Your task to perform on an android device: Open sound settings Image 0: 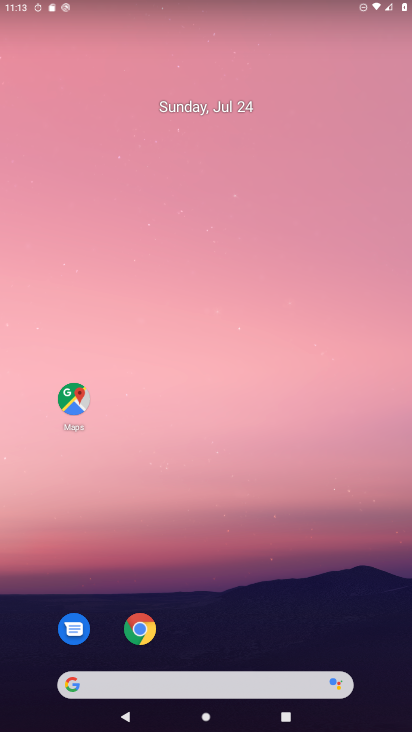
Step 0: drag from (207, 655) to (295, 106)
Your task to perform on an android device: Open sound settings Image 1: 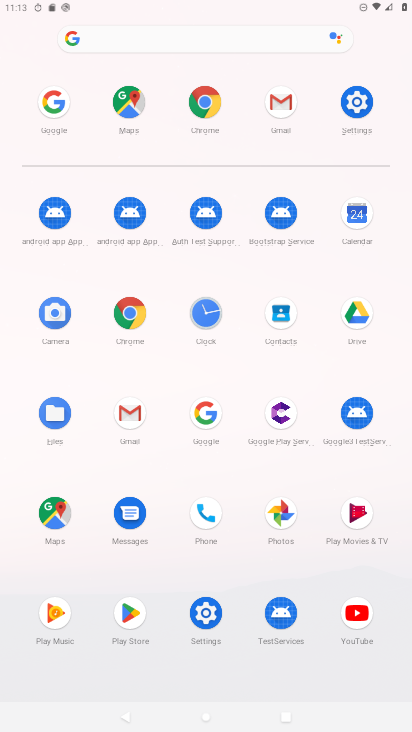
Step 1: click (358, 100)
Your task to perform on an android device: Open sound settings Image 2: 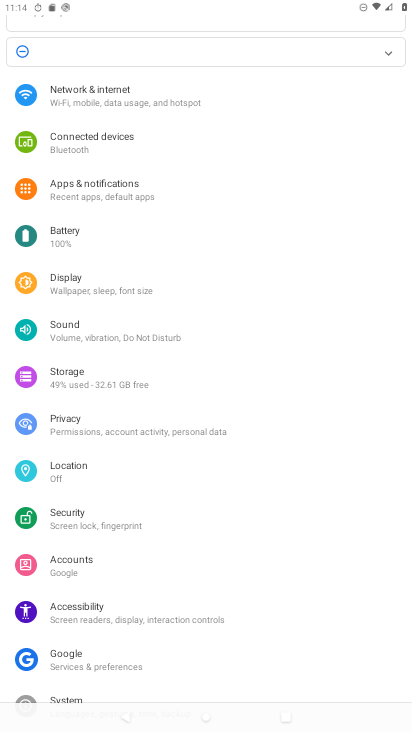
Step 2: click (114, 334)
Your task to perform on an android device: Open sound settings Image 3: 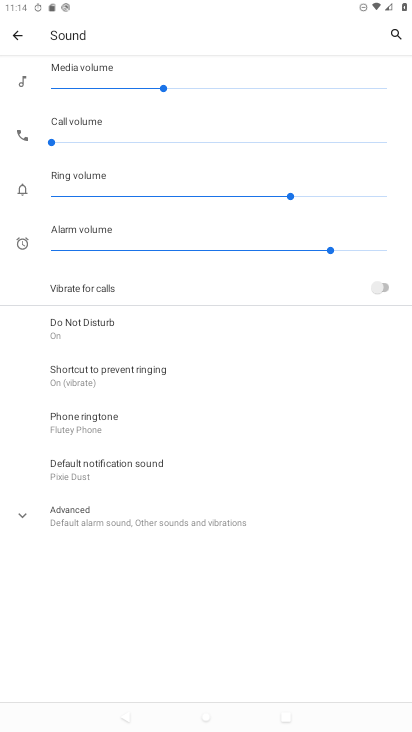
Step 3: task complete